Your task to perform on an android device: Go to Yahoo.com Image 0: 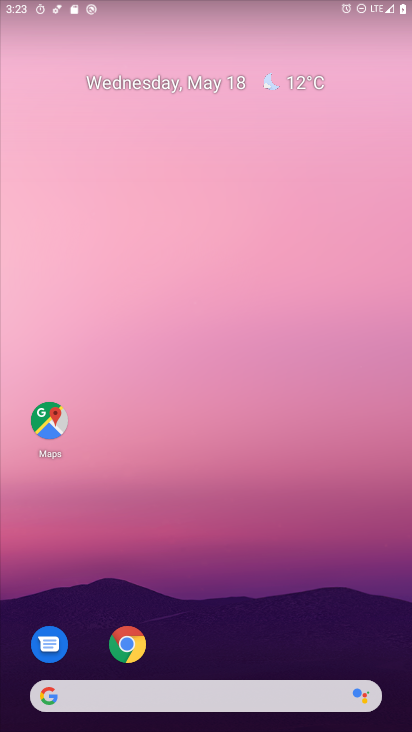
Step 0: click (115, 642)
Your task to perform on an android device: Go to Yahoo.com Image 1: 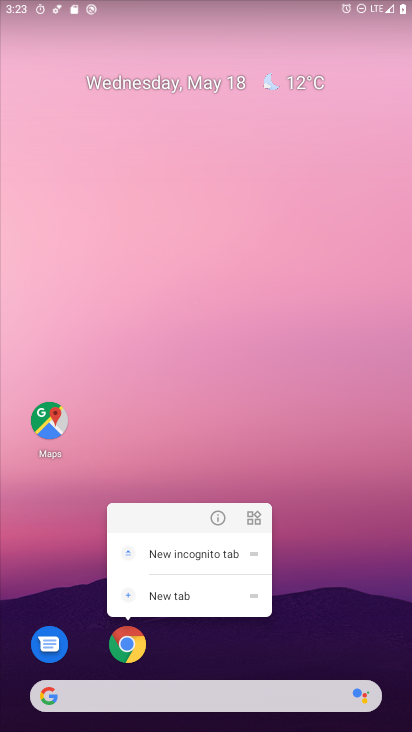
Step 1: click (136, 639)
Your task to perform on an android device: Go to Yahoo.com Image 2: 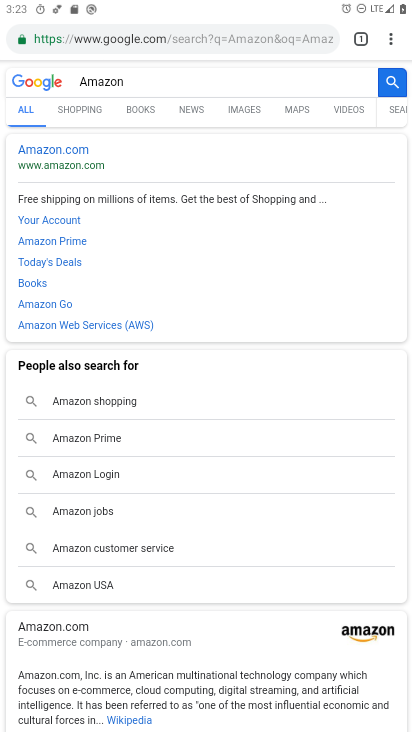
Step 2: click (320, 31)
Your task to perform on an android device: Go to Yahoo.com Image 3: 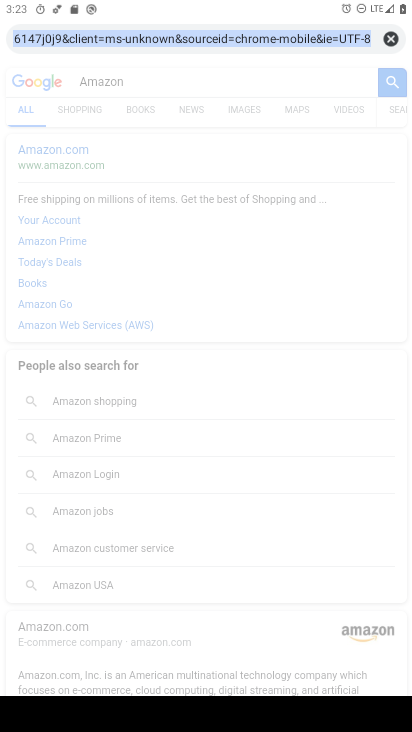
Step 3: click (388, 35)
Your task to perform on an android device: Go to Yahoo.com Image 4: 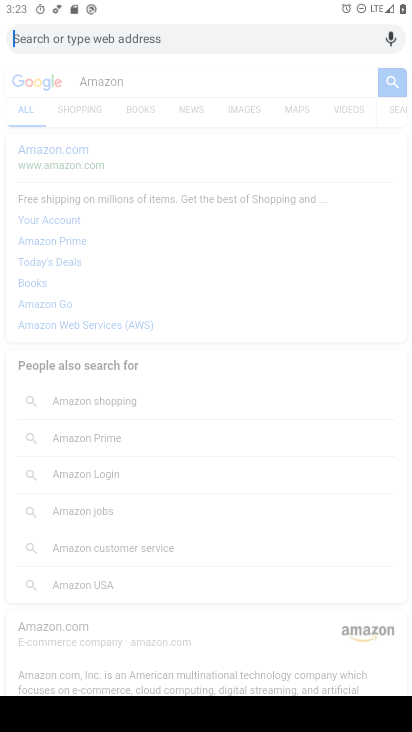
Step 4: type "Yahoo.com"
Your task to perform on an android device: Go to Yahoo.com Image 5: 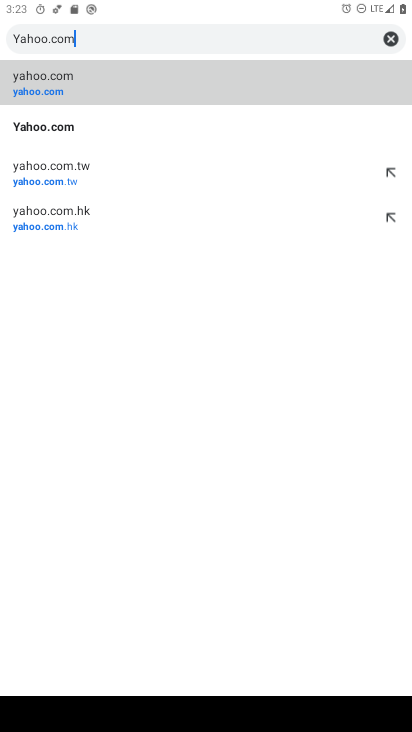
Step 5: click (23, 122)
Your task to perform on an android device: Go to Yahoo.com Image 6: 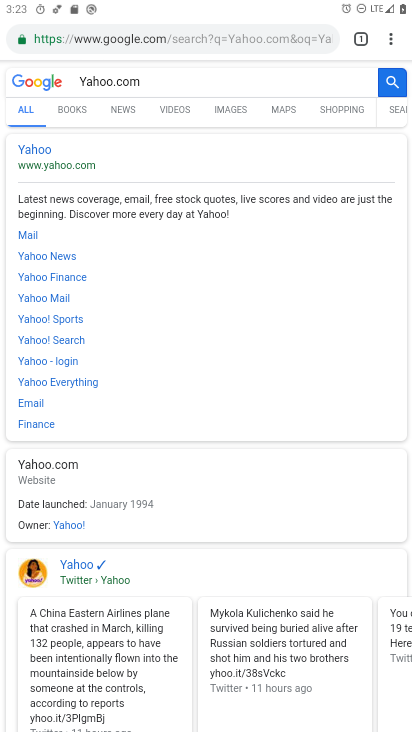
Step 6: task complete